Your task to perform on an android device: Show the shopping cart on amazon.com. Add razer blade to the cart on amazon.com, then select checkout. Image 0: 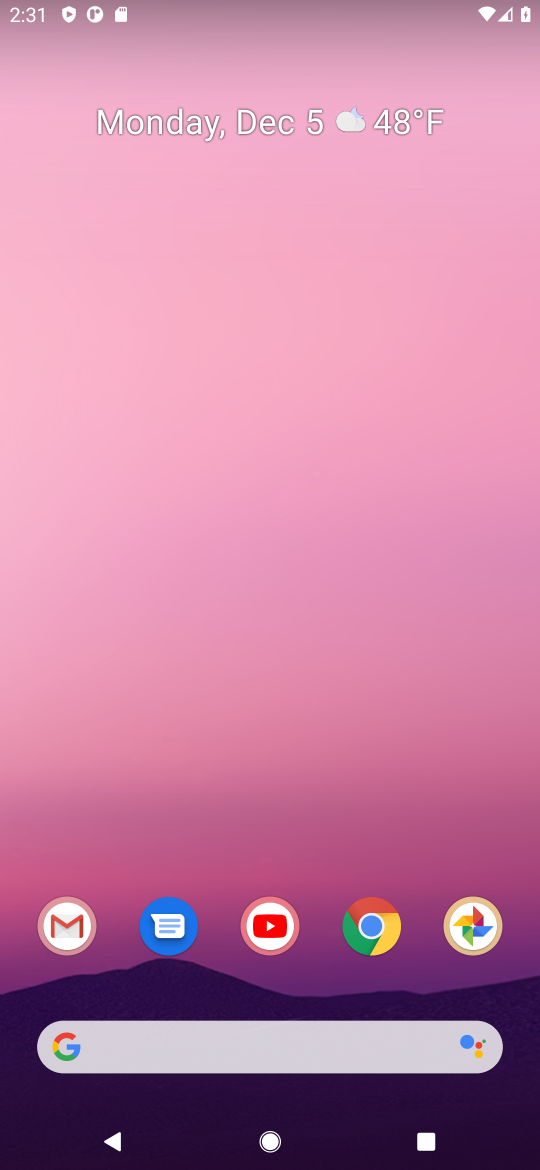
Step 0: click (381, 932)
Your task to perform on an android device: Show the shopping cart on amazon.com. Add razer blade to the cart on amazon.com, then select checkout. Image 1: 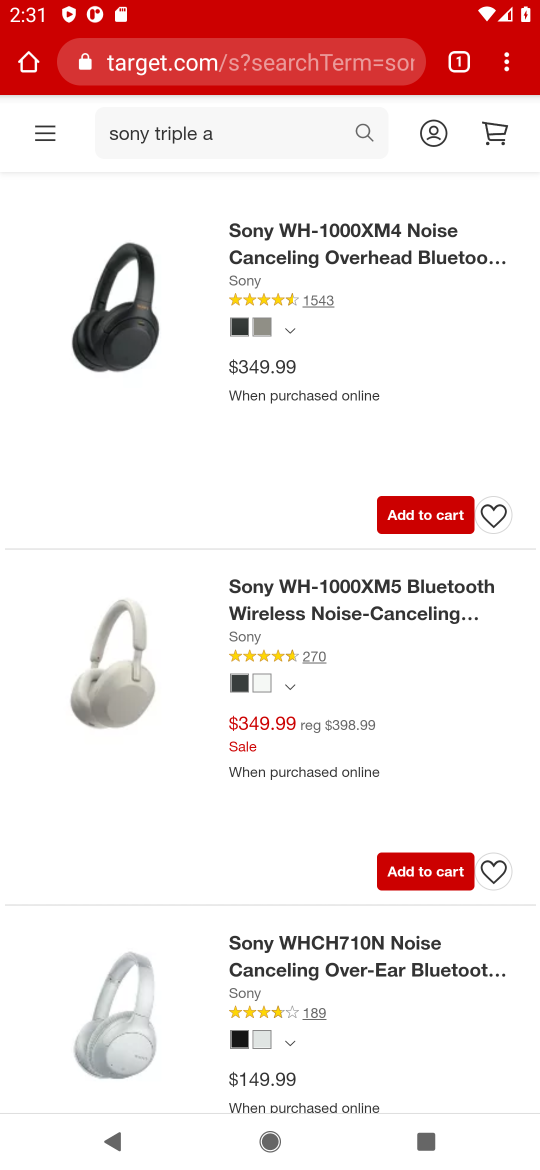
Step 1: click (366, 57)
Your task to perform on an android device: Show the shopping cart on amazon.com. Add razer blade to the cart on amazon.com, then select checkout. Image 2: 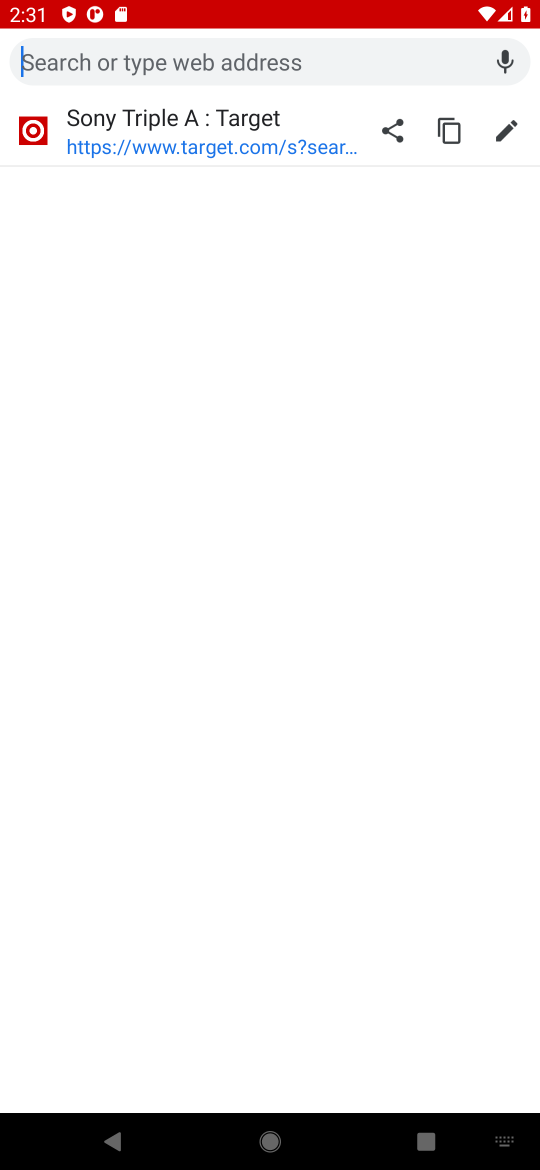
Step 2: type " amazon.com"
Your task to perform on an android device: Show the shopping cart on amazon.com. Add razer blade to the cart on amazon.com, then select checkout. Image 3: 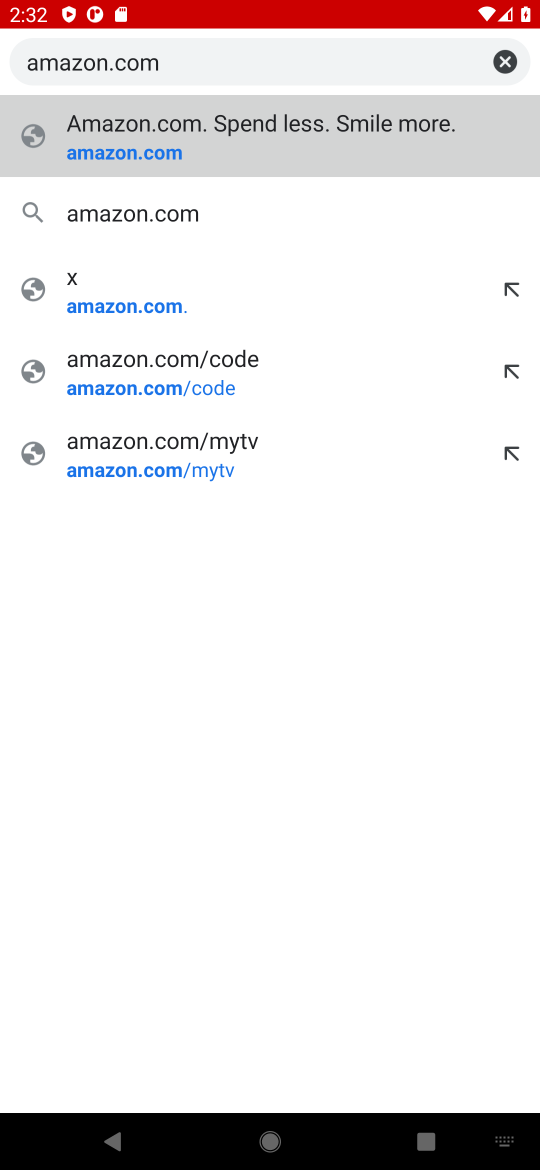
Step 3: press enter
Your task to perform on an android device: Show the shopping cart on amazon.com. Add razer blade to the cart on amazon.com, then select checkout. Image 4: 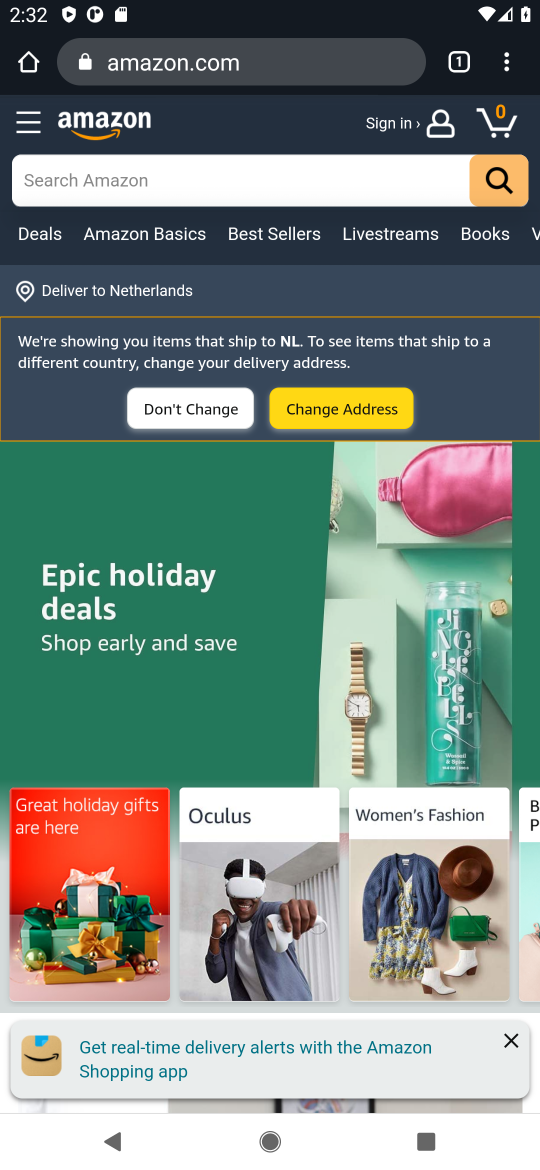
Step 4: click (303, 180)
Your task to perform on an android device: Show the shopping cart on amazon.com. Add razer blade to the cart on amazon.com, then select checkout. Image 5: 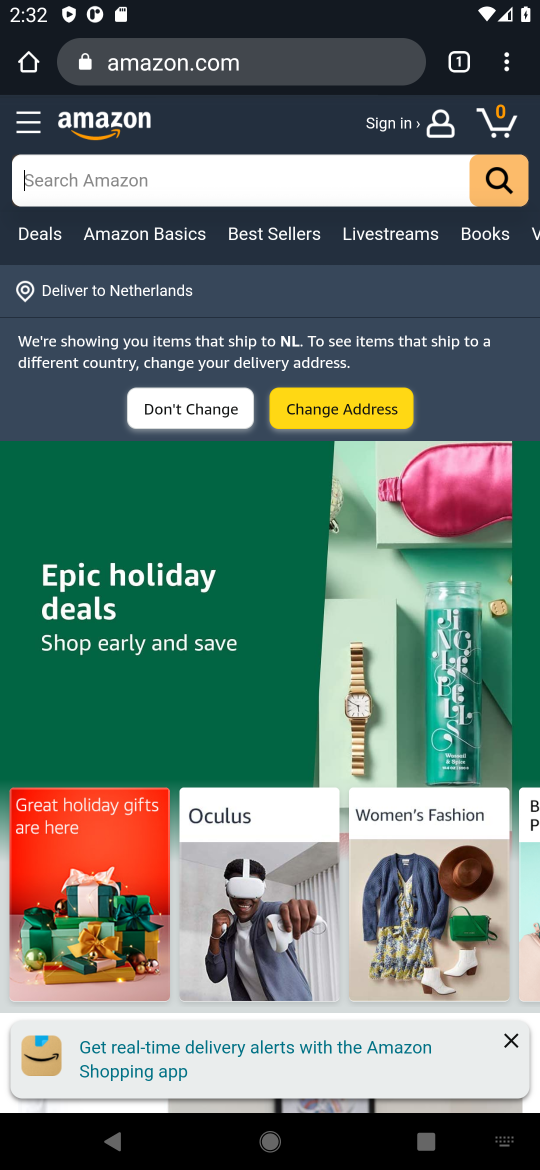
Step 5: press enter
Your task to perform on an android device: Show the shopping cart on amazon.com. Add razer blade to the cart on amazon.com, then select checkout. Image 6: 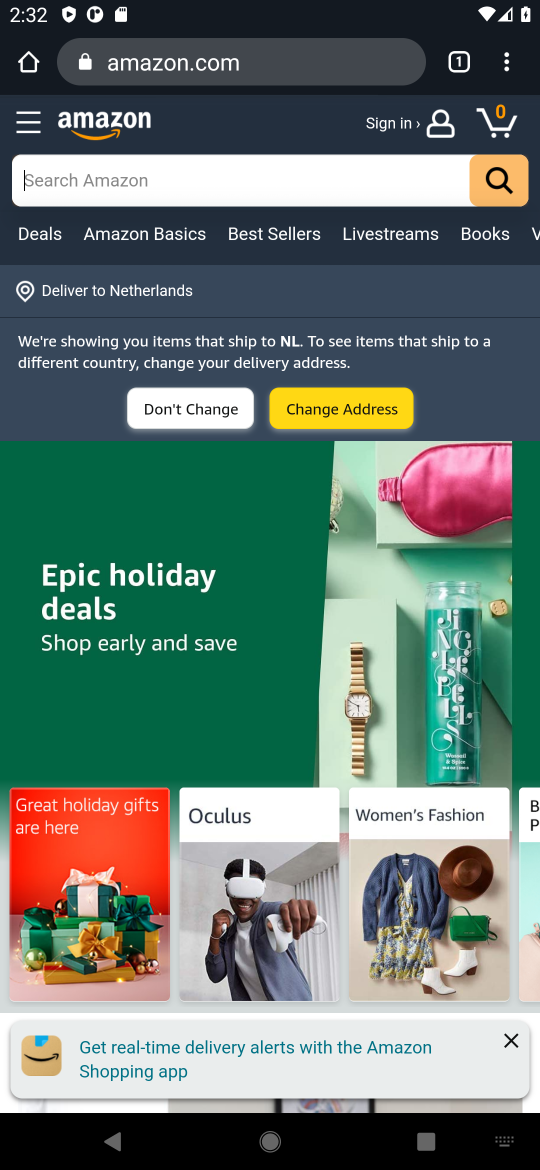
Step 6: type "razer blade"
Your task to perform on an android device: Show the shopping cart on amazon.com. Add razer blade to the cart on amazon.com, then select checkout. Image 7: 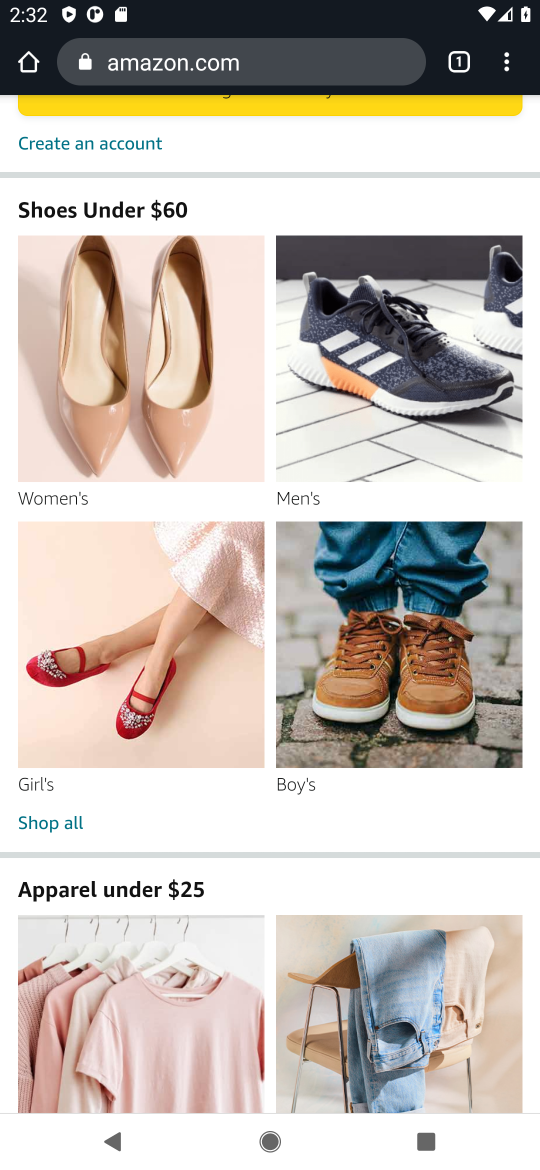
Step 7: drag from (488, 301) to (539, 703)
Your task to perform on an android device: Show the shopping cart on amazon.com. Add razer blade to the cart on amazon.com, then select checkout. Image 8: 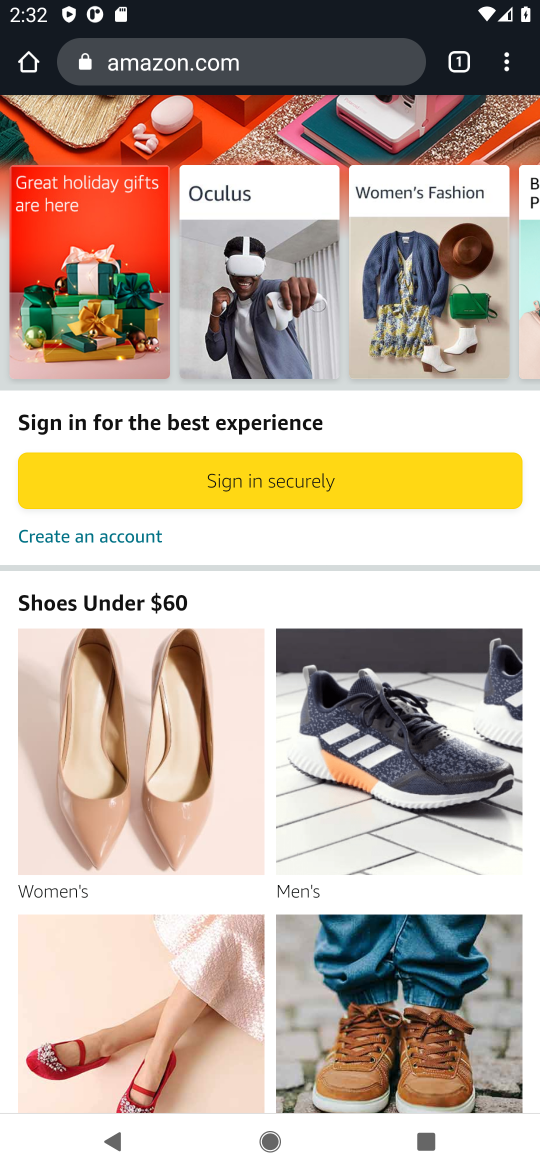
Step 8: drag from (343, 230) to (397, 916)
Your task to perform on an android device: Show the shopping cart on amazon.com. Add razer blade to the cart on amazon.com, then select checkout. Image 9: 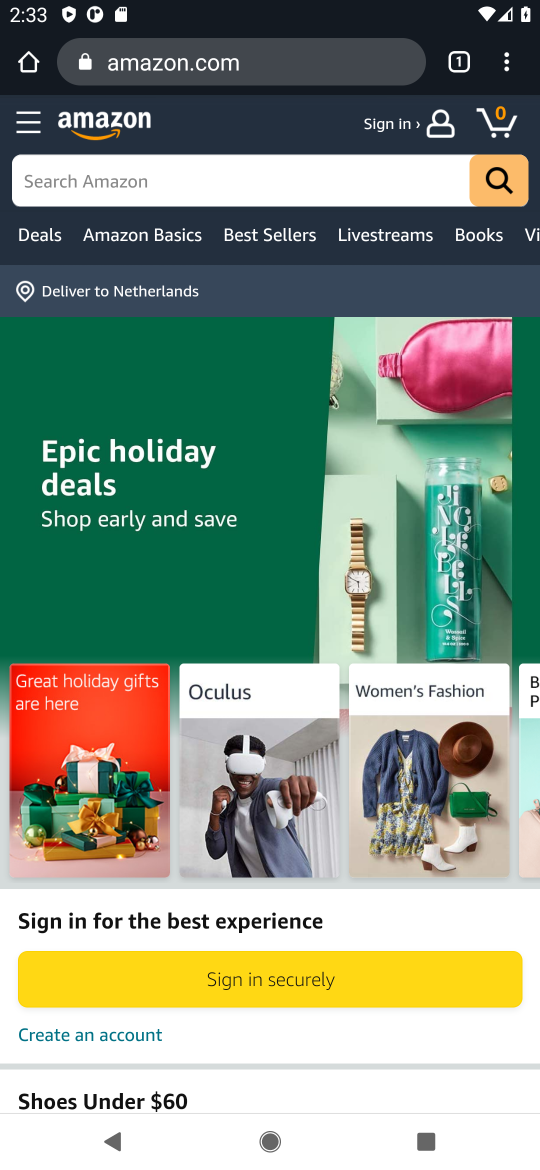
Step 9: click (244, 178)
Your task to perform on an android device: Show the shopping cart on amazon.com. Add razer blade to the cart on amazon.com, then select checkout. Image 10: 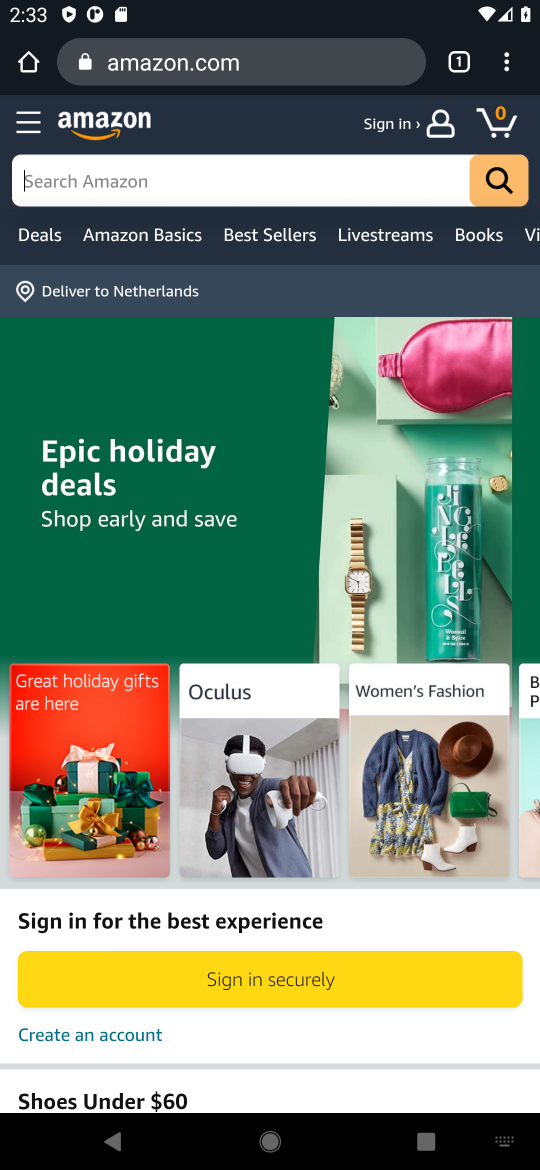
Step 10: type "razer blade"
Your task to perform on an android device: Show the shopping cart on amazon.com. Add razer blade to the cart on amazon.com, then select checkout. Image 11: 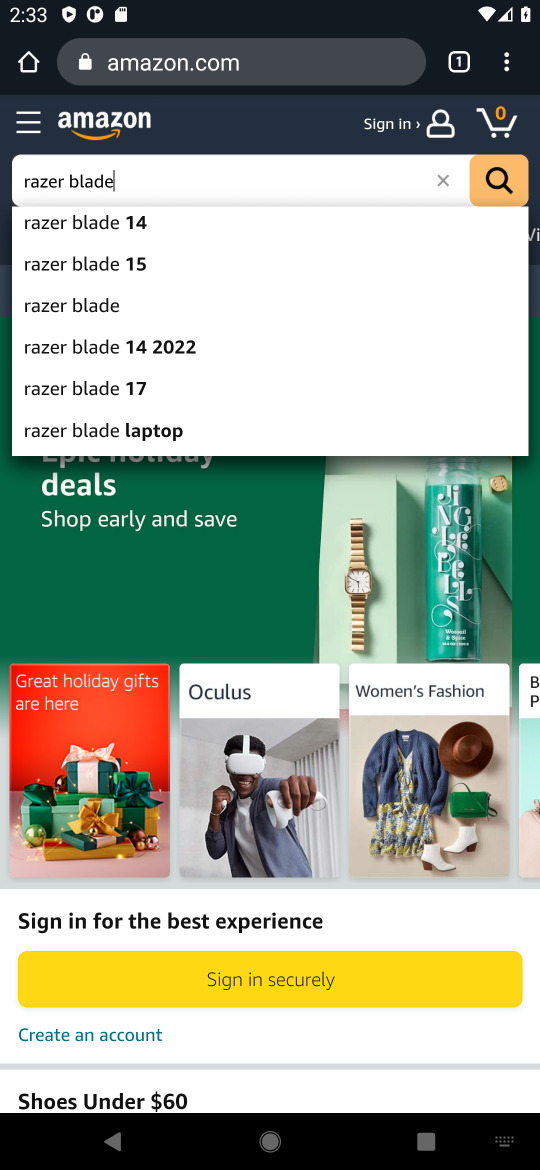
Step 11: press enter
Your task to perform on an android device: Show the shopping cart on amazon.com. Add razer blade to the cart on amazon.com, then select checkout. Image 12: 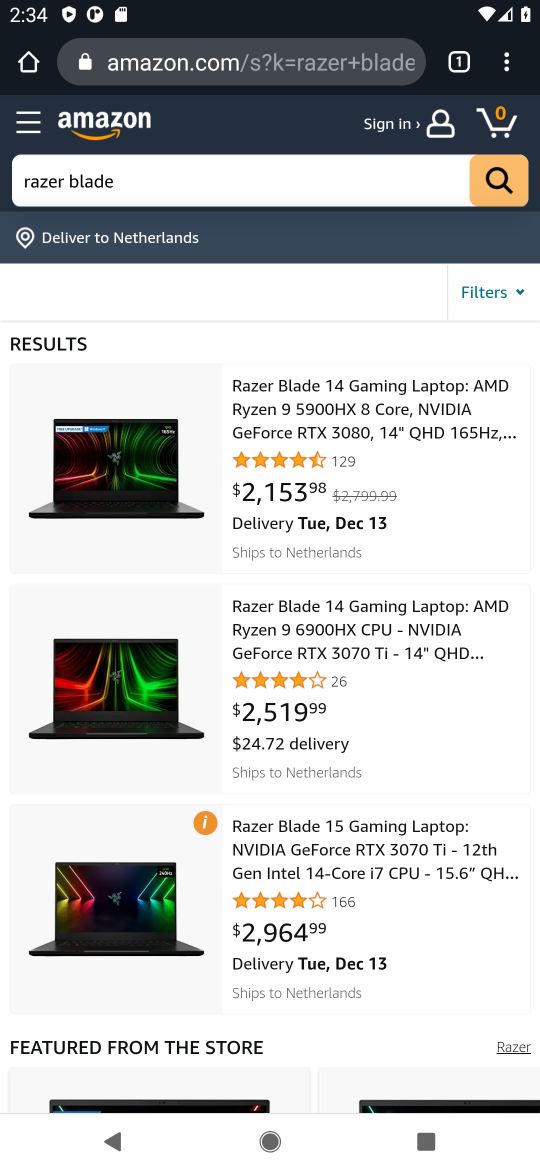
Step 12: click (161, 454)
Your task to perform on an android device: Show the shopping cart on amazon.com. Add razer blade to the cart on amazon.com, then select checkout. Image 13: 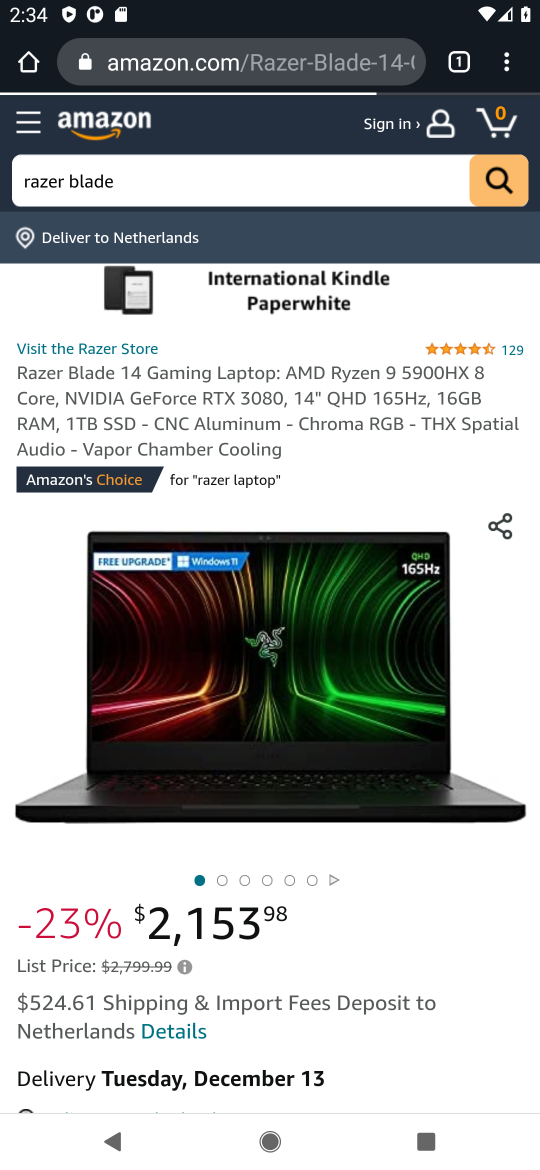
Step 13: click (305, 669)
Your task to perform on an android device: Show the shopping cart on amazon.com. Add razer blade to the cart on amazon.com, then select checkout. Image 14: 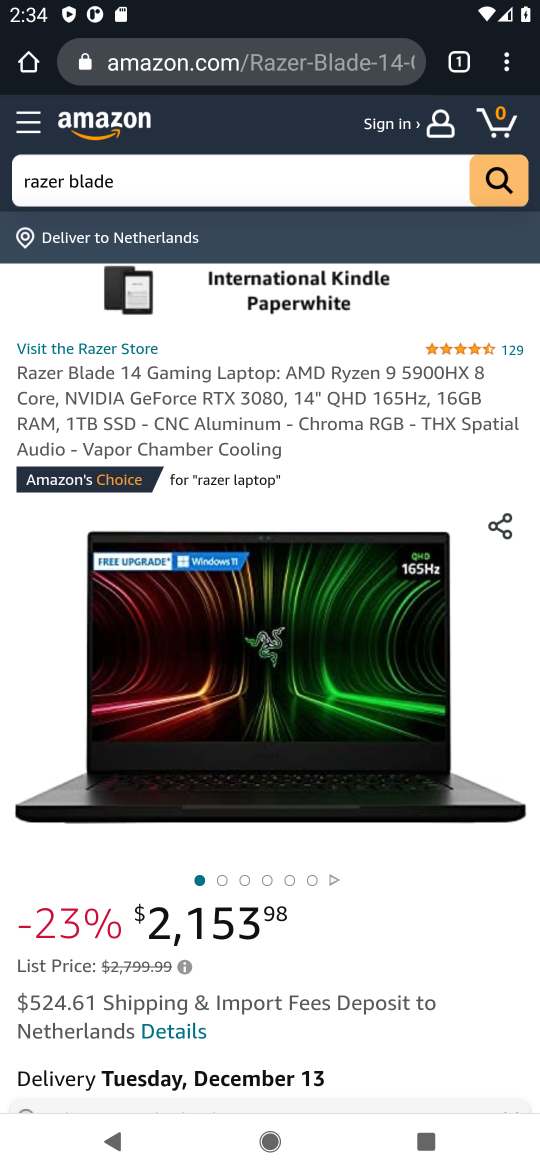
Step 14: click (343, 692)
Your task to perform on an android device: Show the shopping cart on amazon.com. Add razer blade to the cart on amazon.com, then select checkout. Image 15: 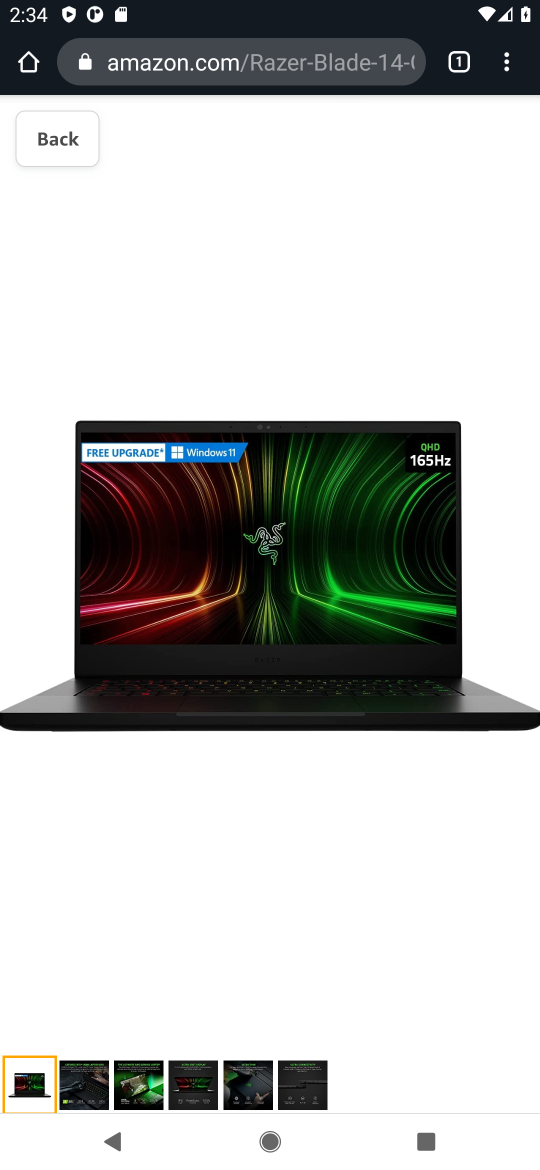
Step 15: task complete